Your task to perform on an android device: turn off improve location accuracy Image 0: 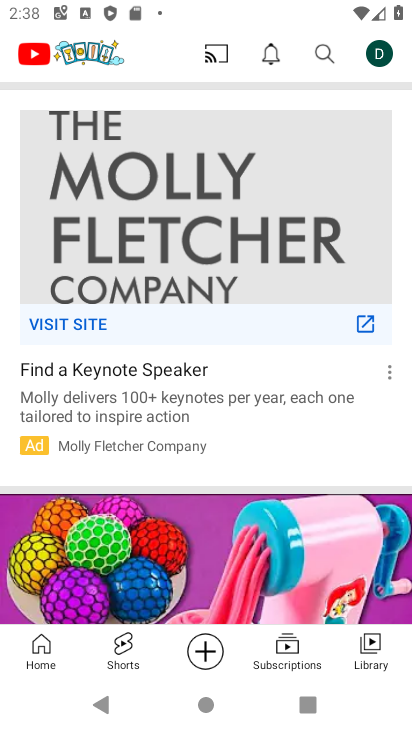
Step 0: press home button
Your task to perform on an android device: turn off improve location accuracy Image 1: 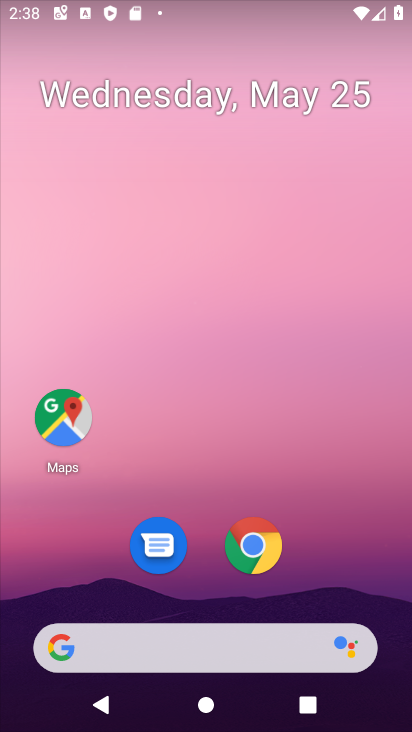
Step 1: drag from (345, 583) to (328, 357)
Your task to perform on an android device: turn off improve location accuracy Image 2: 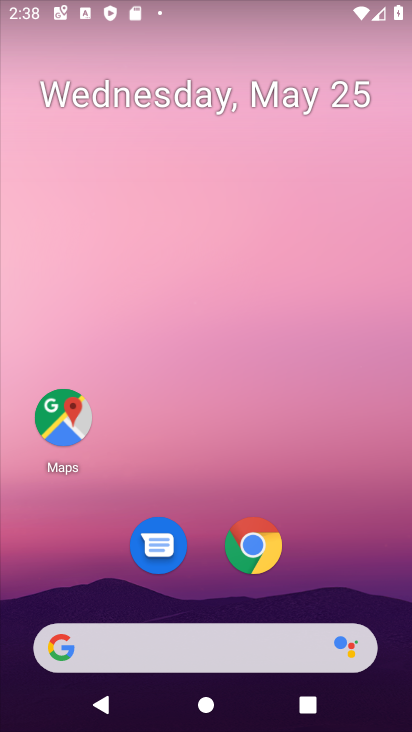
Step 2: drag from (358, 589) to (270, 50)
Your task to perform on an android device: turn off improve location accuracy Image 3: 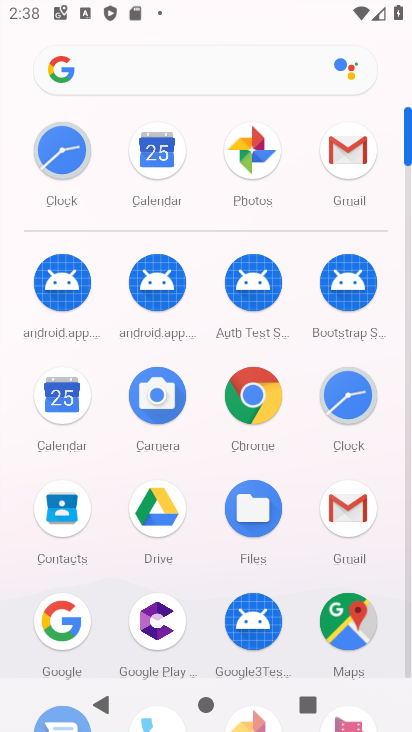
Step 3: click (410, 647)
Your task to perform on an android device: turn off improve location accuracy Image 4: 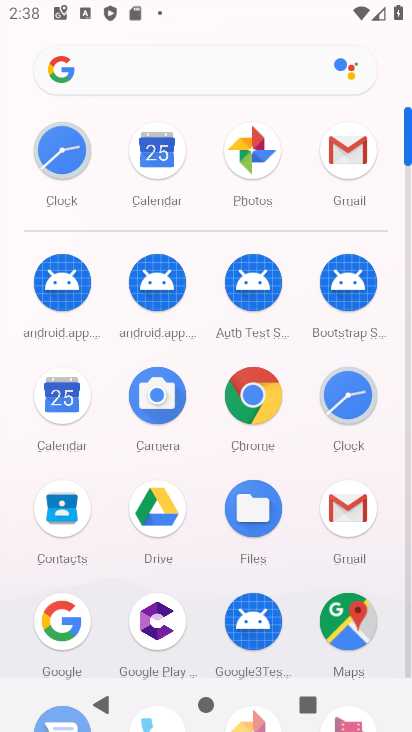
Step 4: click (410, 647)
Your task to perform on an android device: turn off improve location accuracy Image 5: 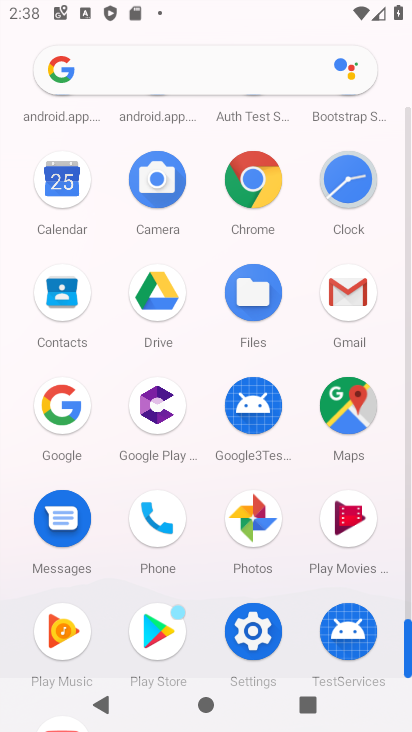
Step 5: click (267, 626)
Your task to perform on an android device: turn off improve location accuracy Image 6: 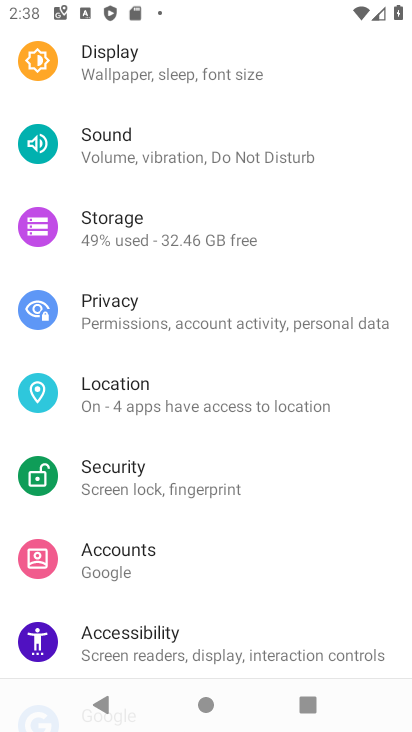
Step 6: drag from (192, 572) to (187, 377)
Your task to perform on an android device: turn off improve location accuracy Image 7: 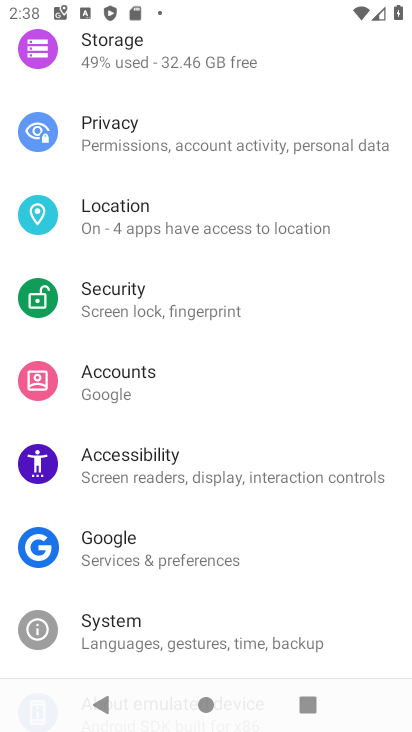
Step 7: click (241, 504)
Your task to perform on an android device: turn off improve location accuracy Image 8: 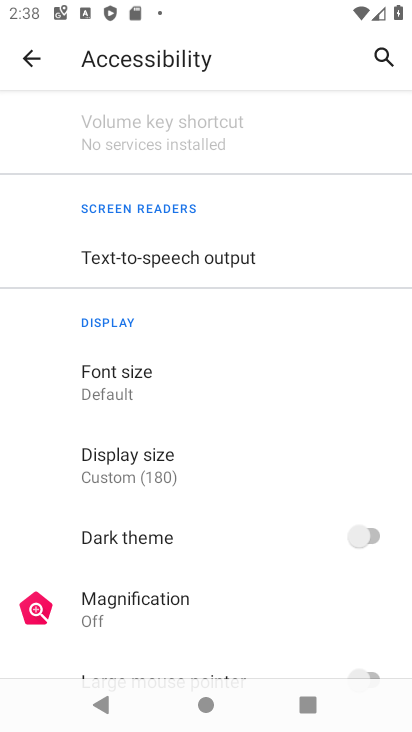
Step 8: click (44, 60)
Your task to perform on an android device: turn off improve location accuracy Image 9: 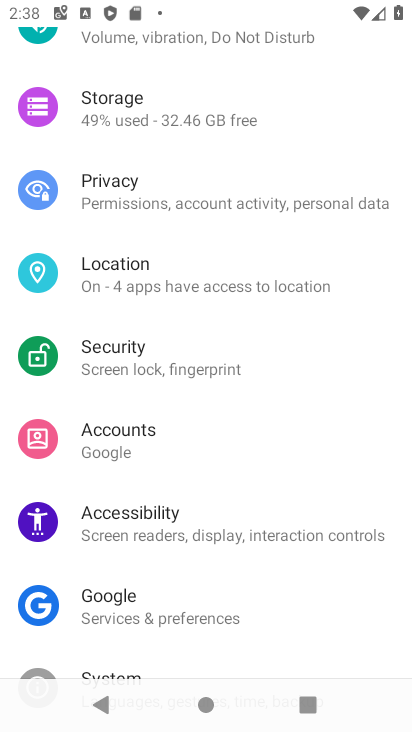
Step 9: click (270, 297)
Your task to perform on an android device: turn off improve location accuracy Image 10: 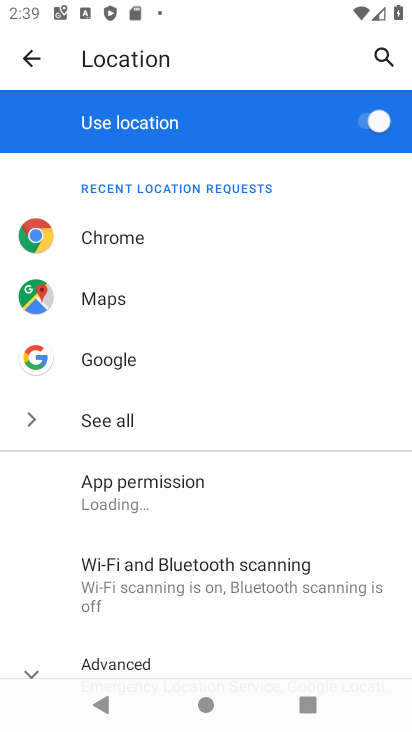
Step 10: drag from (223, 614) to (222, 326)
Your task to perform on an android device: turn off improve location accuracy Image 11: 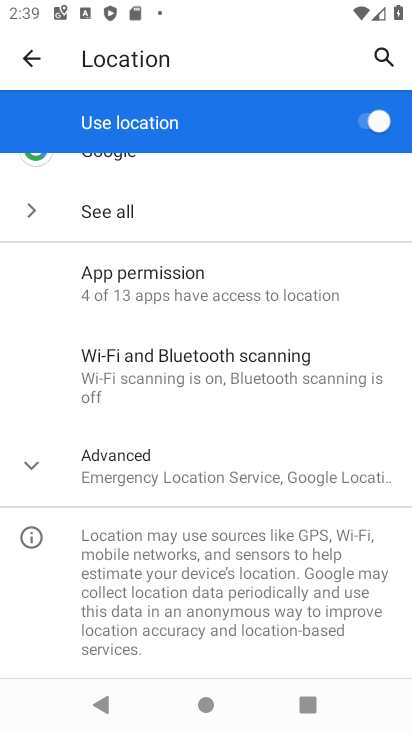
Step 11: click (215, 479)
Your task to perform on an android device: turn off improve location accuracy Image 12: 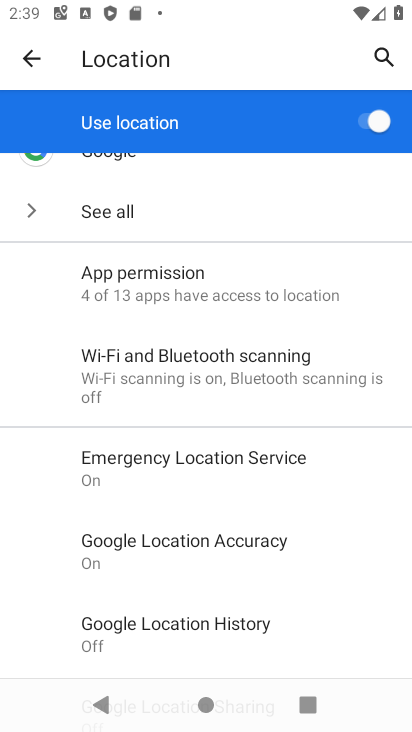
Step 12: drag from (240, 611) to (243, 515)
Your task to perform on an android device: turn off improve location accuracy Image 13: 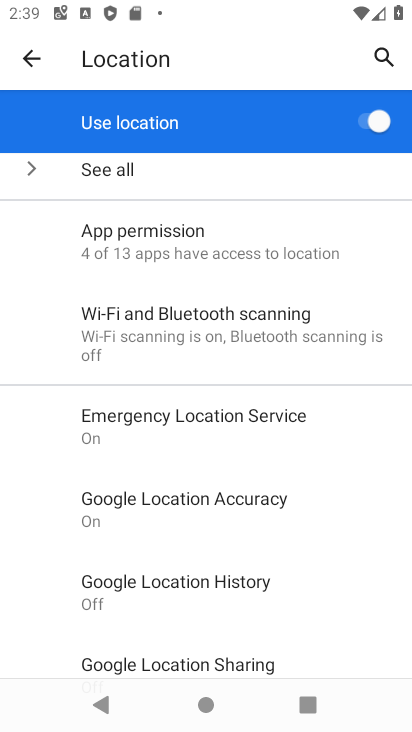
Step 13: click (242, 605)
Your task to perform on an android device: turn off improve location accuracy Image 14: 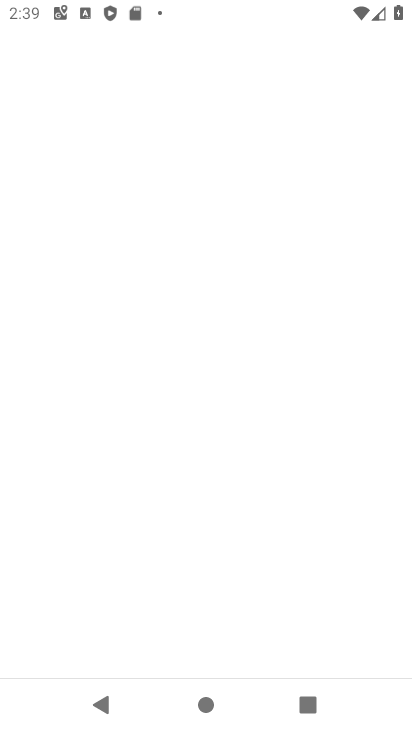
Step 14: task complete